Your task to perform on an android device: What's on the menu at IHOP? Image 0: 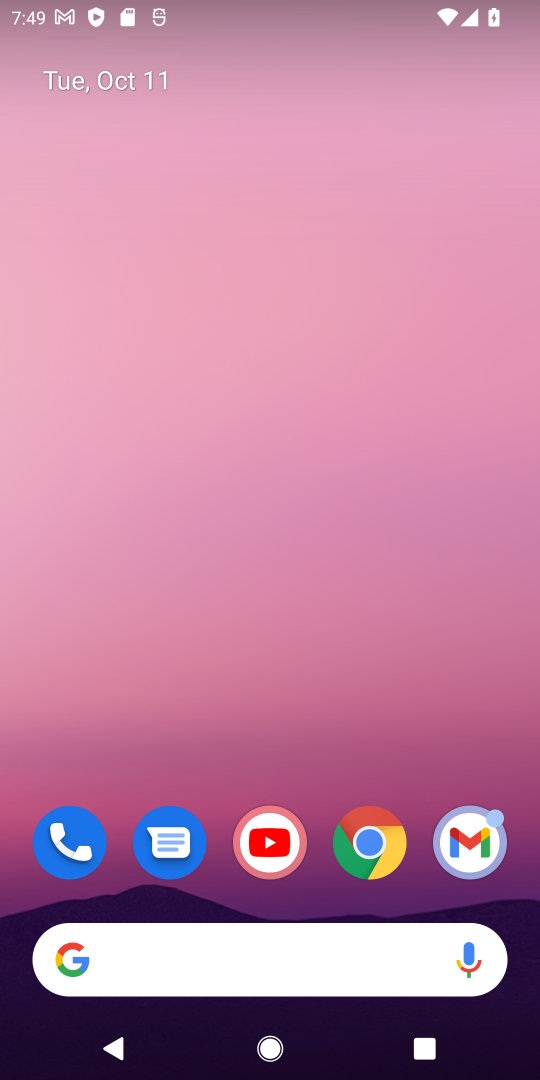
Step 0: click (374, 843)
Your task to perform on an android device: What's on the menu at IHOP? Image 1: 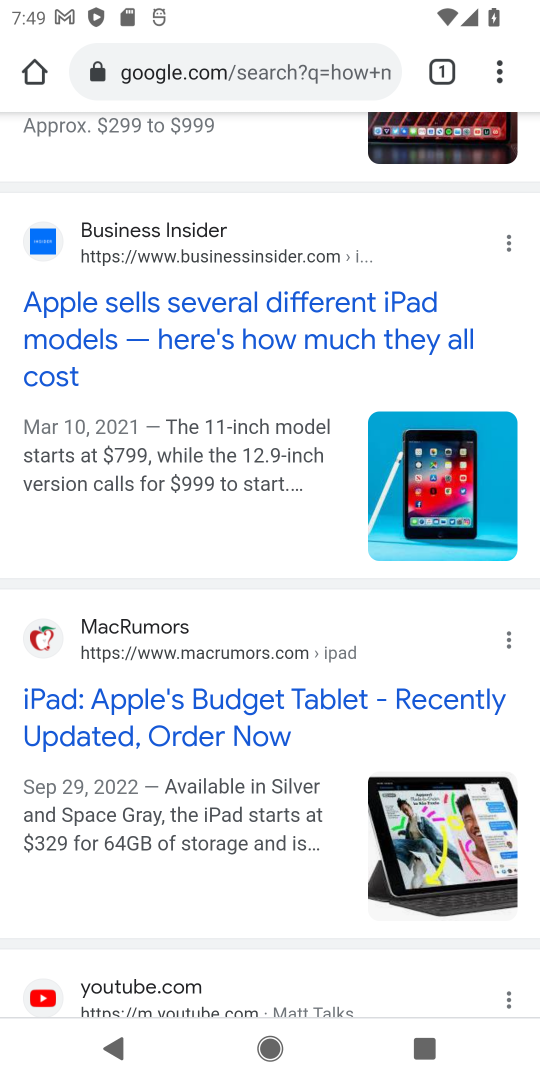
Step 1: click (270, 63)
Your task to perform on an android device: What's on the menu at IHOP? Image 2: 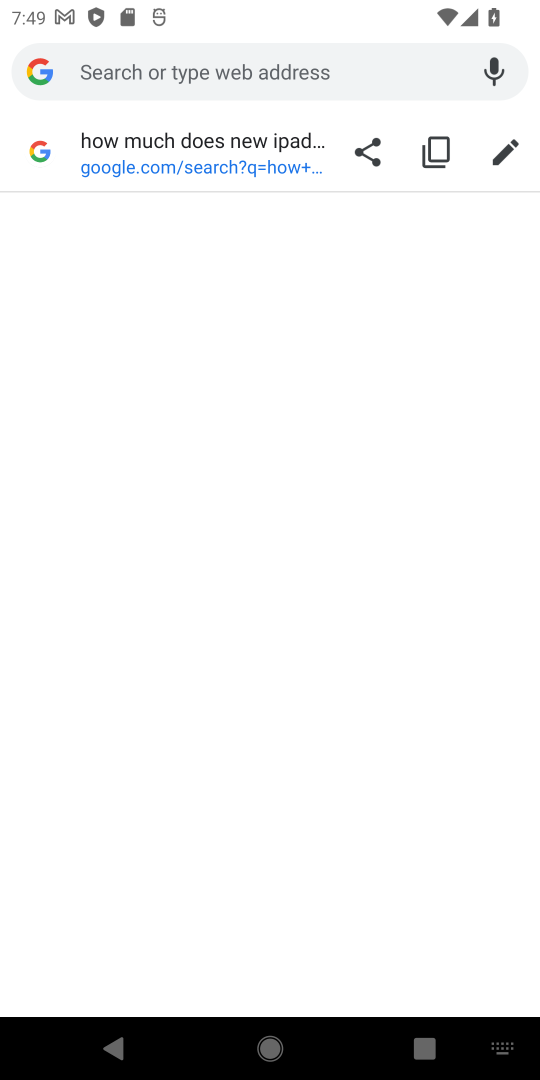
Step 2: type "whats on the menu at ihop"
Your task to perform on an android device: What's on the menu at IHOP? Image 3: 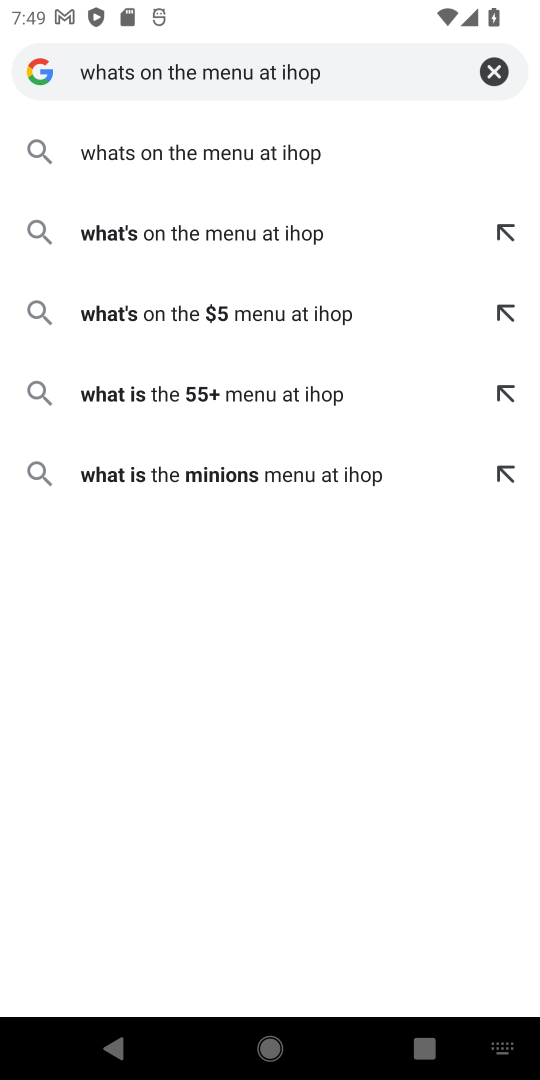
Step 3: click (201, 155)
Your task to perform on an android device: What's on the menu at IHOP? Image 4: 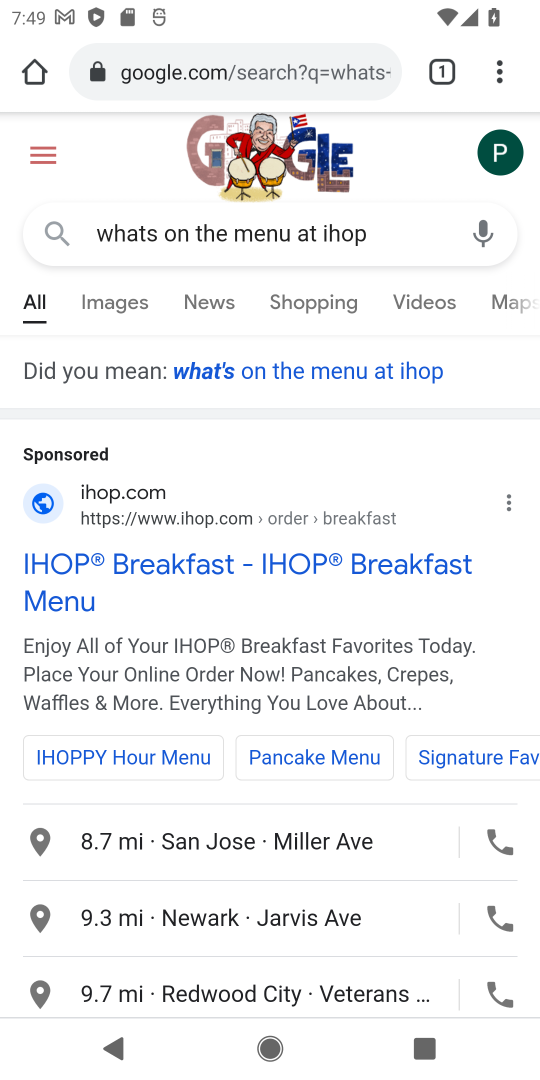
Step 4: drag from (514, 616) to (530, 71)
Your task to perform on an android device: What's on the menu at IHOP? Image 5: 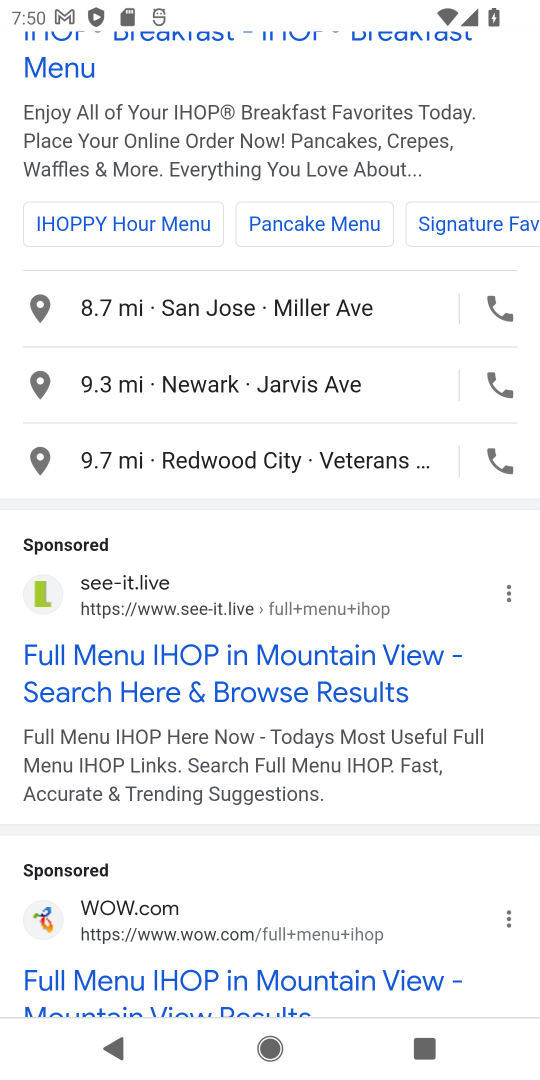
Step 5: drag from (319, 829) to (326, 439)
Your task to perform on an android device: What's on the menu at IHOP? Image 6: 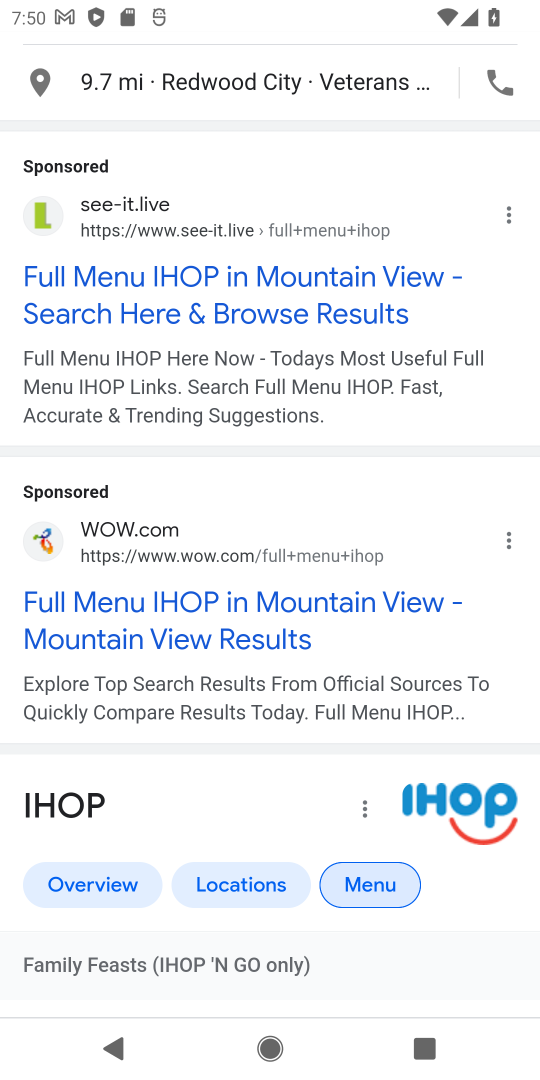
Step 6: click (351, 884)
Your task to perform on an android device: What's on the menu at IHOP? Image 7: 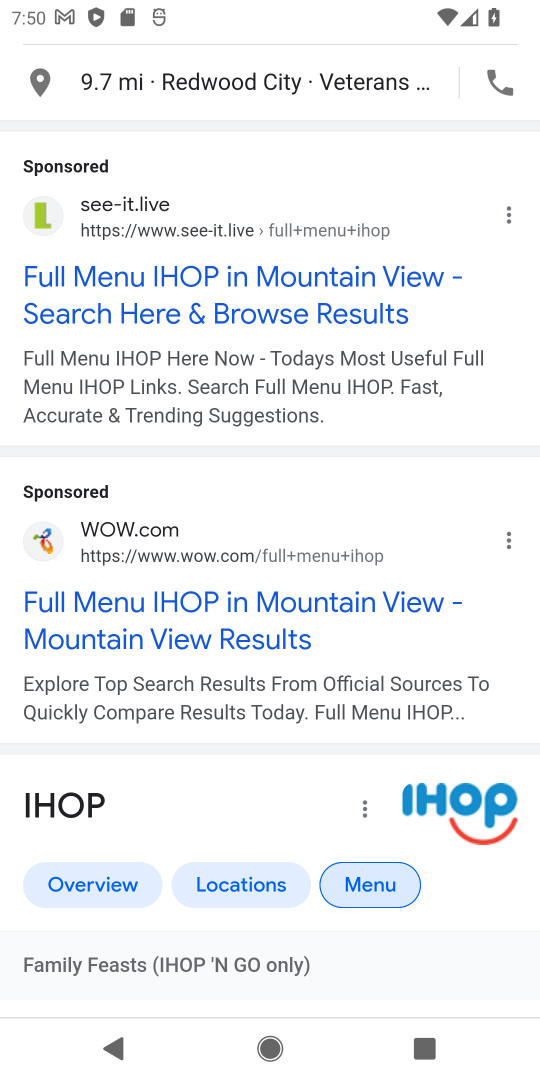
Step 7: click (359, 889)
Your task to perform on an android device: What's on the menu at IHOP? Image 8: 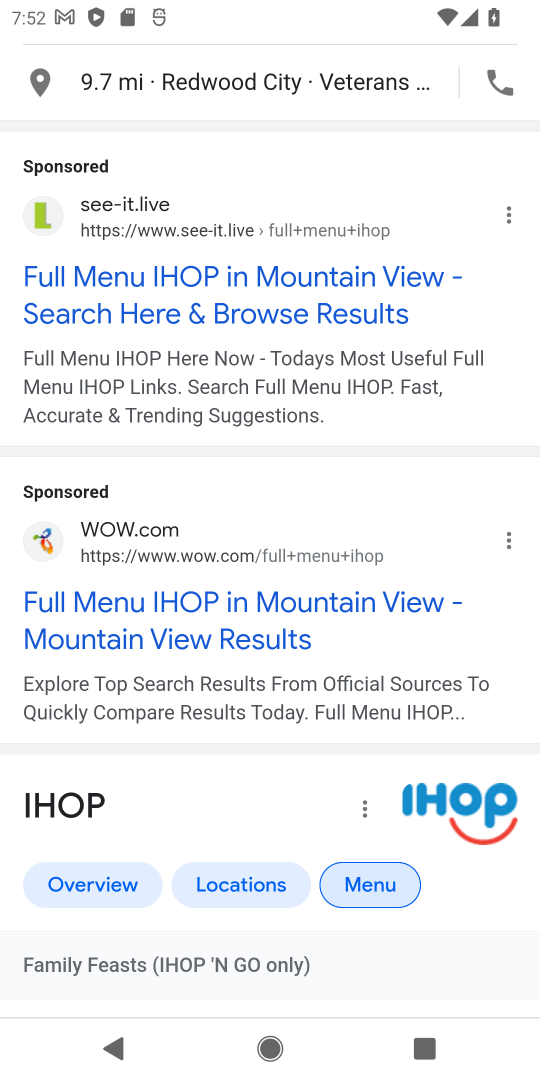
Step 8: click (350, 877)
Your task to perform on an android device: What's on the menu at IHOP? Image 9: 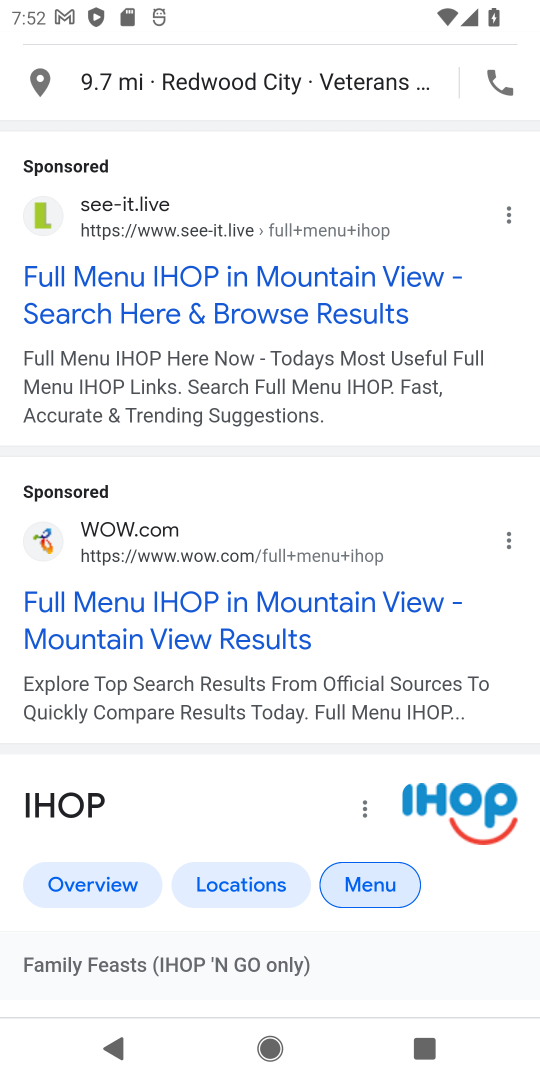
Step 9: task complete